Your task to perform on an android device: toggle location history Image 0: 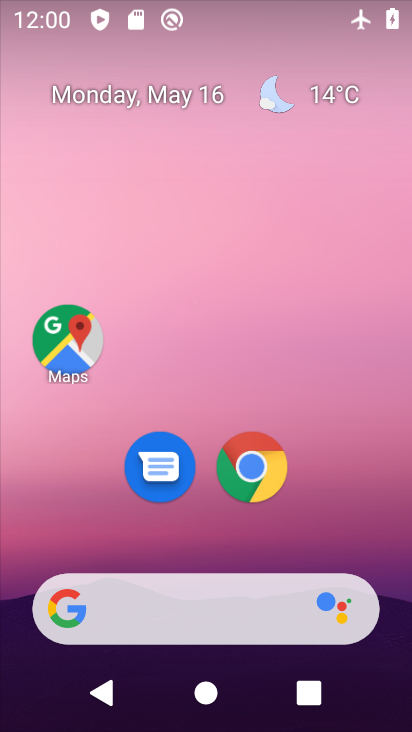
Step 0: drag from (320, 543) to (379, 238)
Your task to perform on an android device: toggle location history Image 1: 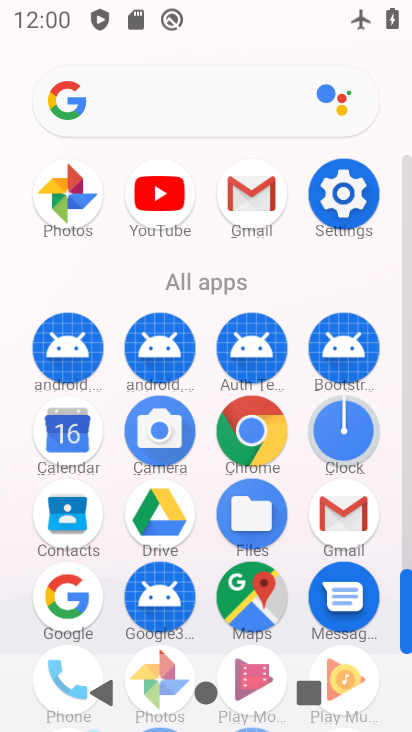
Step 1: click (341, 190)
Your task to perform on an android device: toggle location history Image 2: 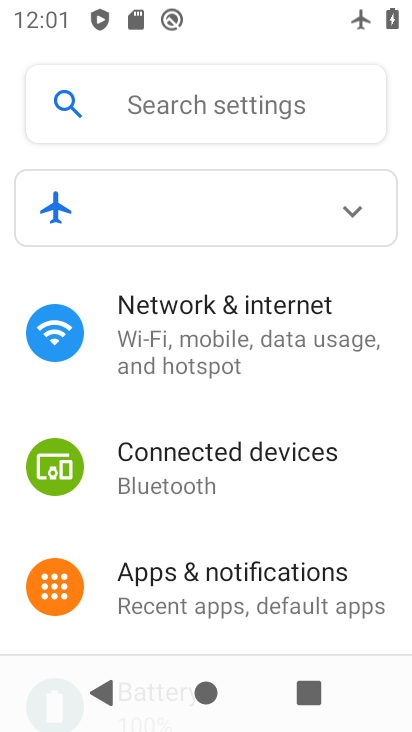
Step 2: drag from (185, 548) to (250, 275)
Your task to perform on an android device: toggle location history Image 3: 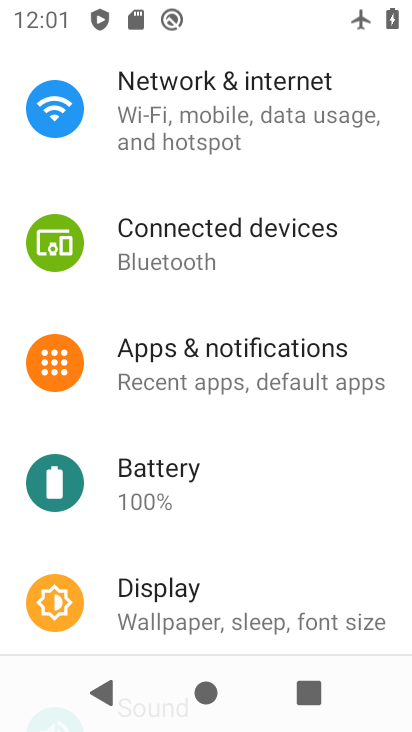
Step 3: drag from (182, 553) to (264, 246)
Your task to perform on an android device: toggle location history Image 4: 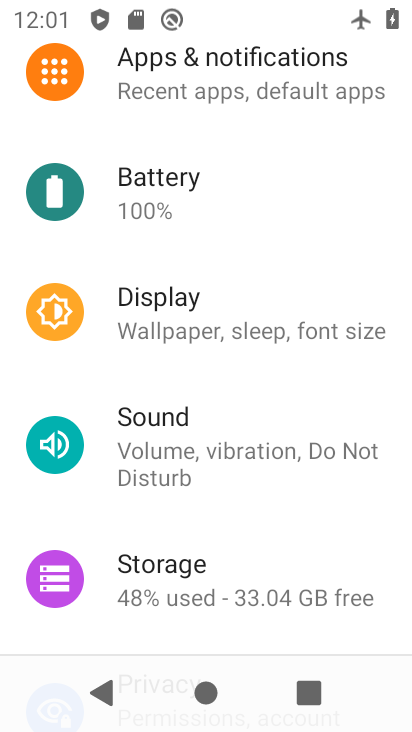
Step 4: drag from (184, 558) to (275, 81)
Your task to perform on an android device: toggle location history Image 5: 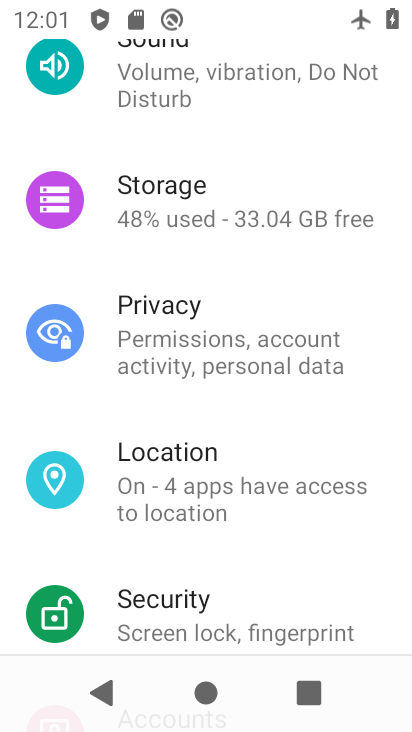
Step 5: click (157, 484)
Your task to perform on an android device: toggle location history Image 6: 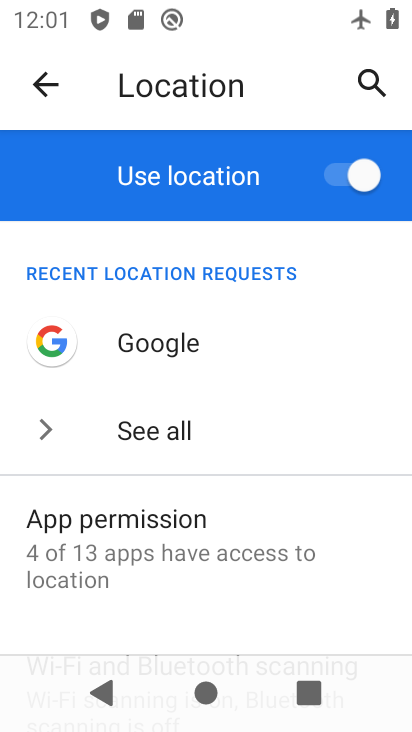
Step 6: click (327, 176)
Your task to perform on an android device: toggle location history Image 7: 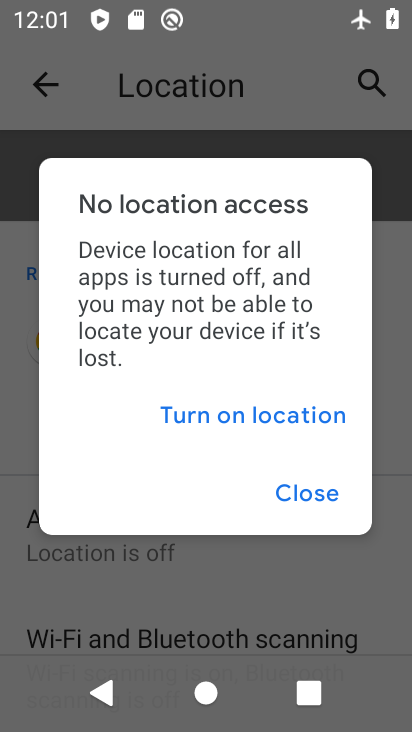
Step 7: click (301, 506)
Your task to perform on an android device: toggle location history Image 8: 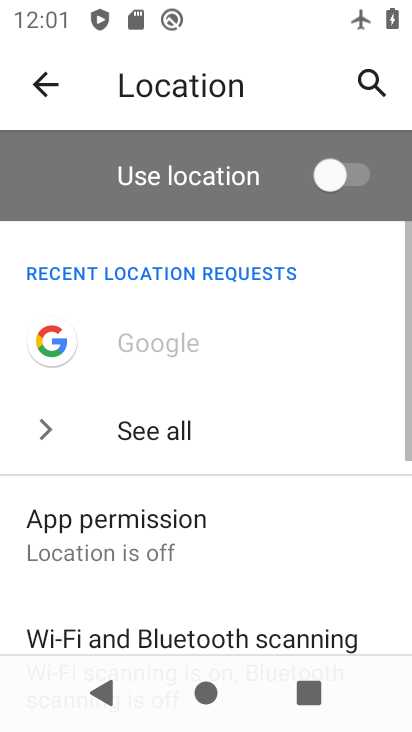
Step 8: task complete